Your task to perform on an android device: stop showing notifications on the lock screen Image 0: 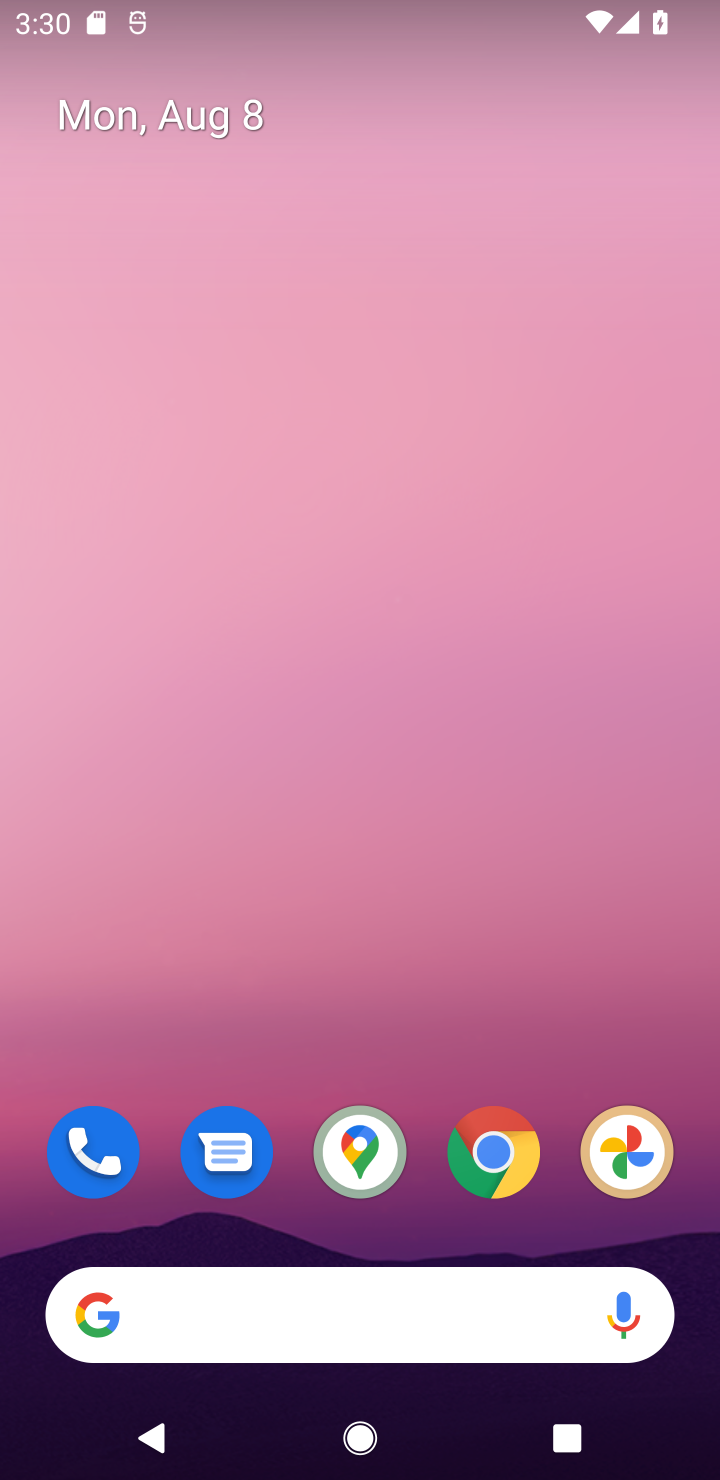
Step 0: drag from (425, 481) to (473, 253)
Your task to perform on an android device: stop showing notifications on the lock screen Image 1: 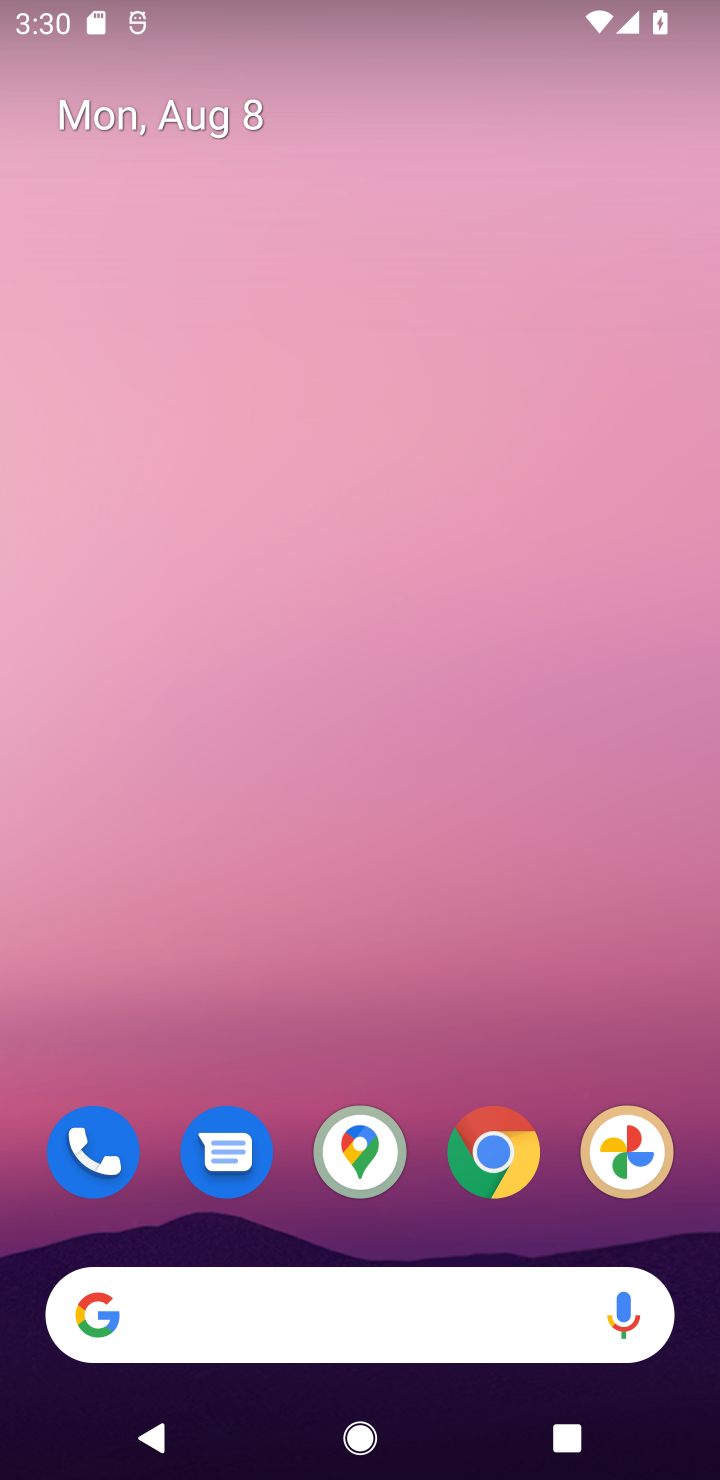
Step 1: drag from (361, 1071) to (370, 6)
Your task to perform on an android device: stop showing notifications on the lock screen Image 2: 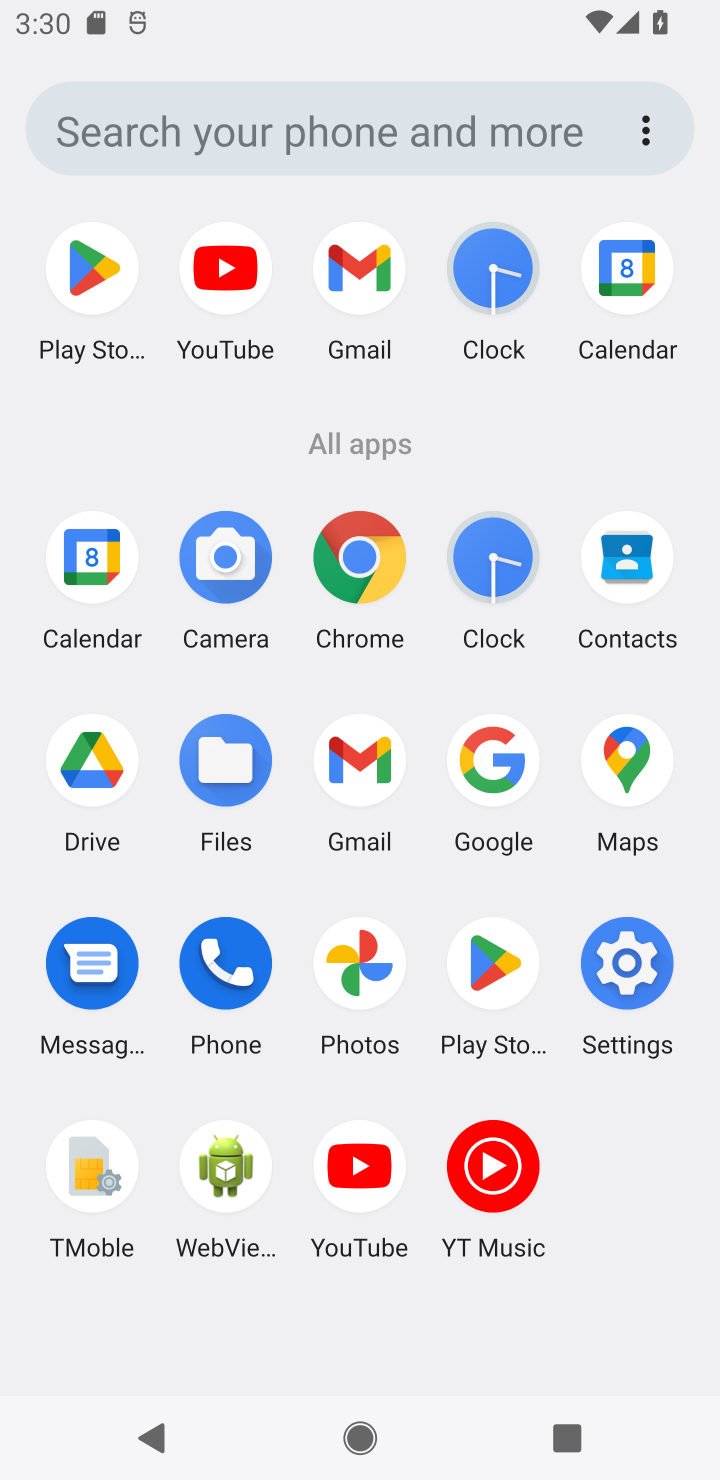
Step 2: click (593, 954)
Your task to perform on an android device: stop showing notifications on the lock screen Image 3: 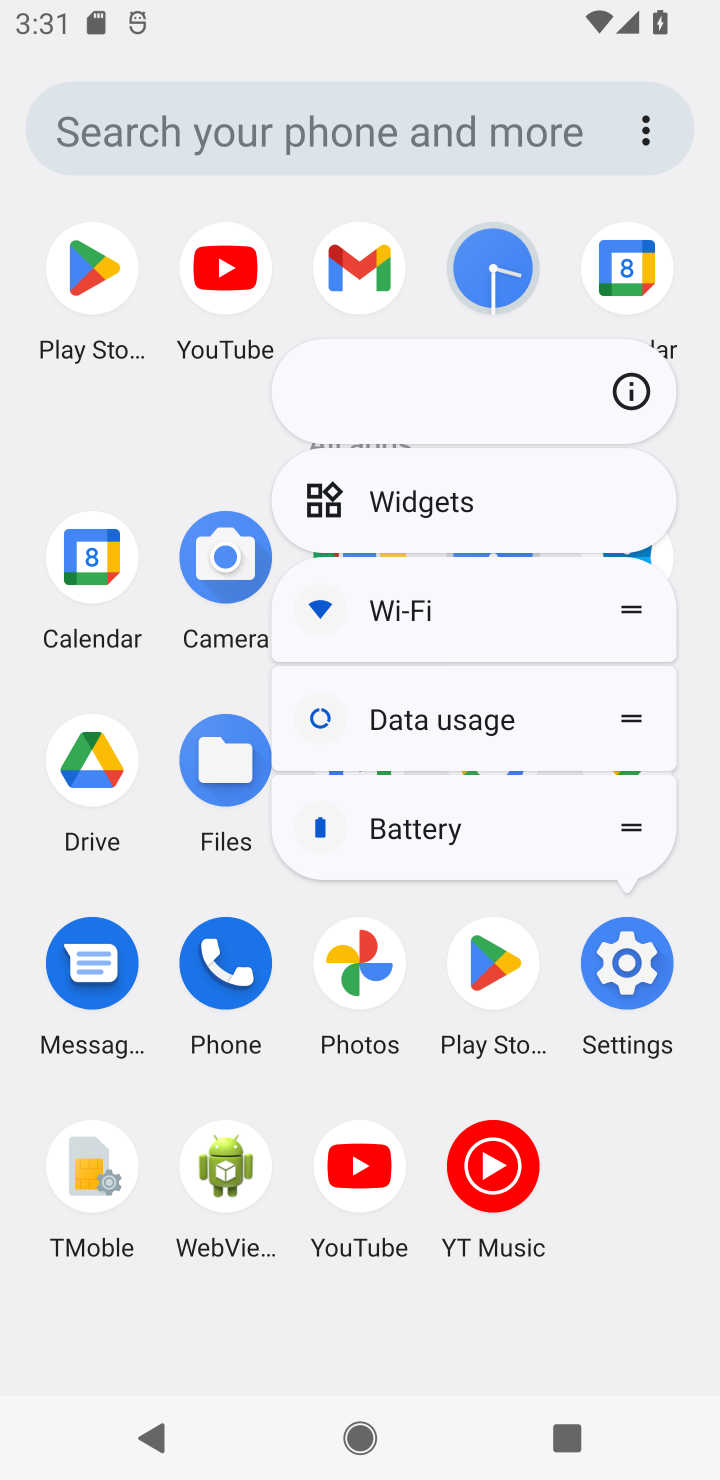
Step 3: click (636, 961)
Your task to perform on an android device: stop showing notifications on the lock screen Image 4: 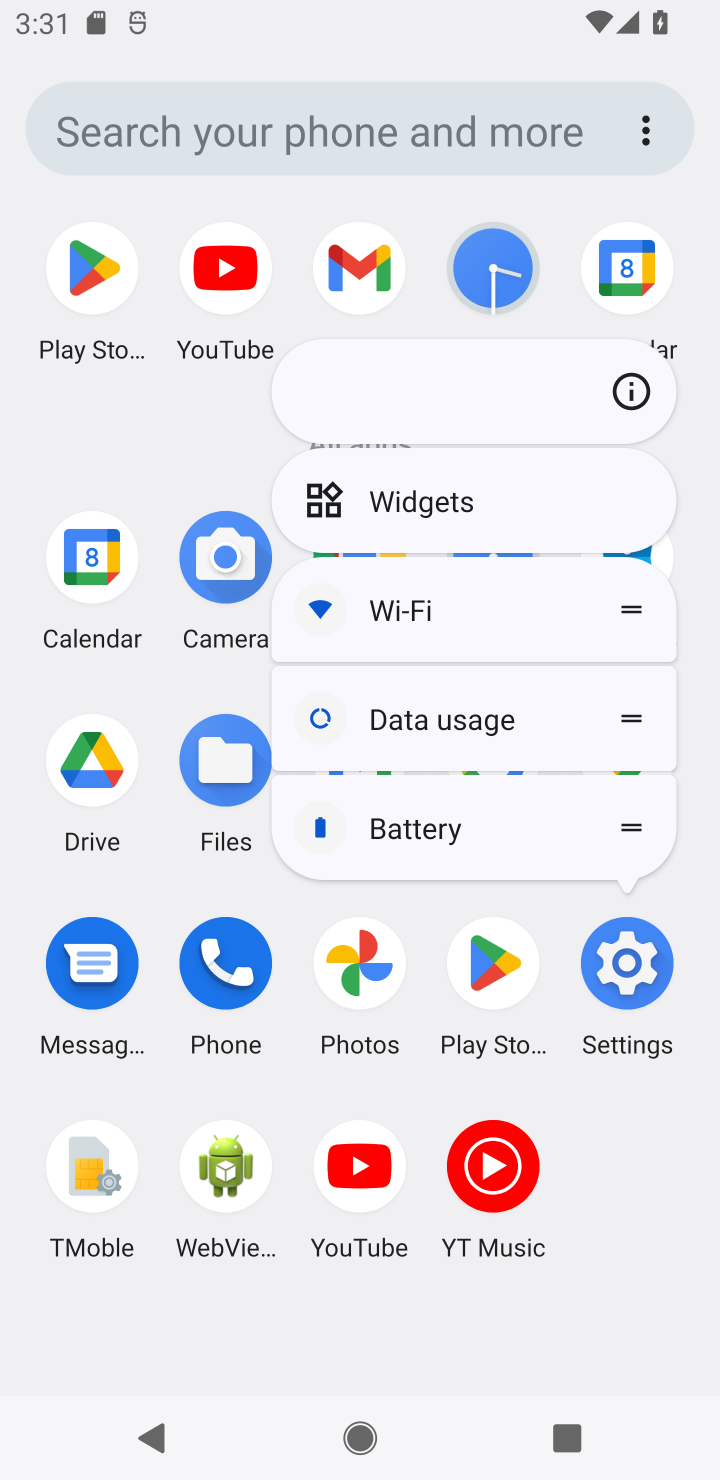
Step 4: click (636, 961)
Your task to perform on an android device: stop showing notifications on the lock screen Image 5: 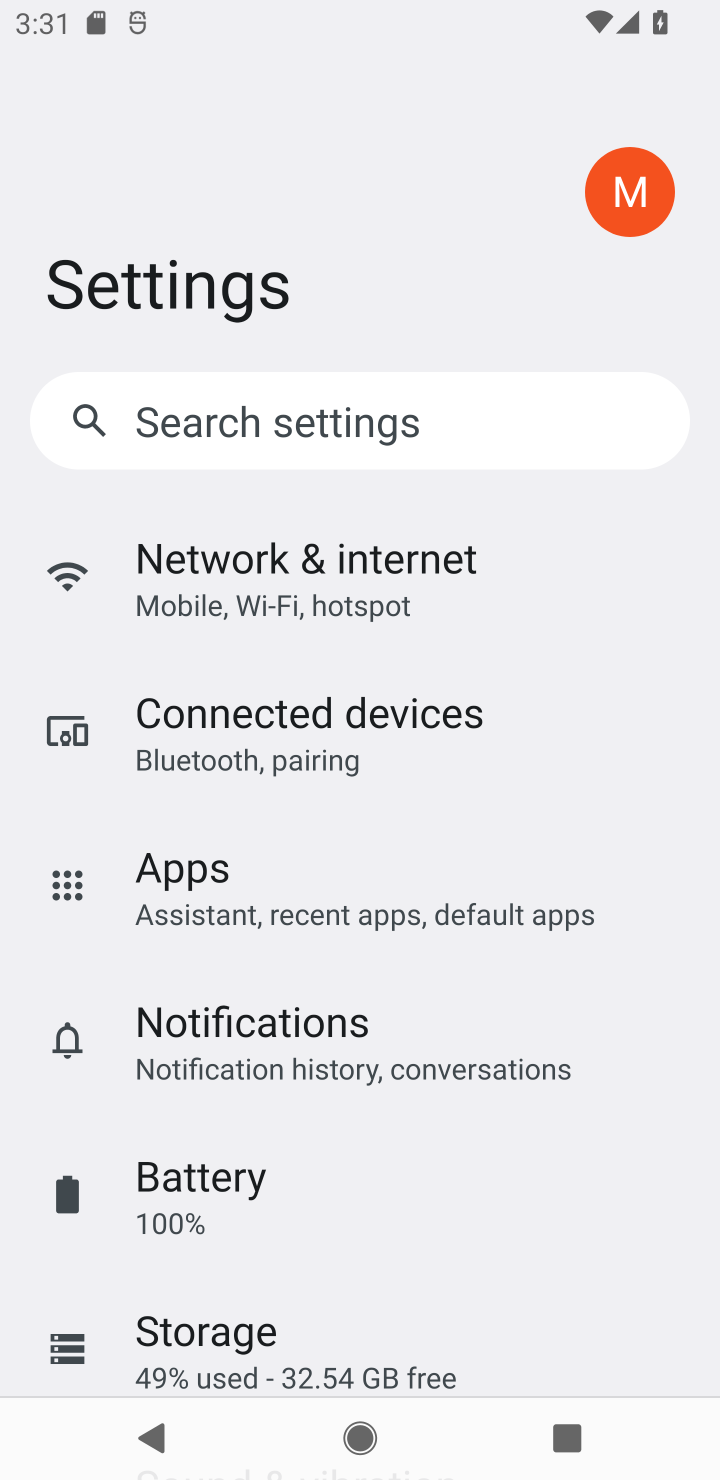
Step 5: click (256, 1030)
Your task to perform on an android device: stop showing notifications on the lock screen Image 6: 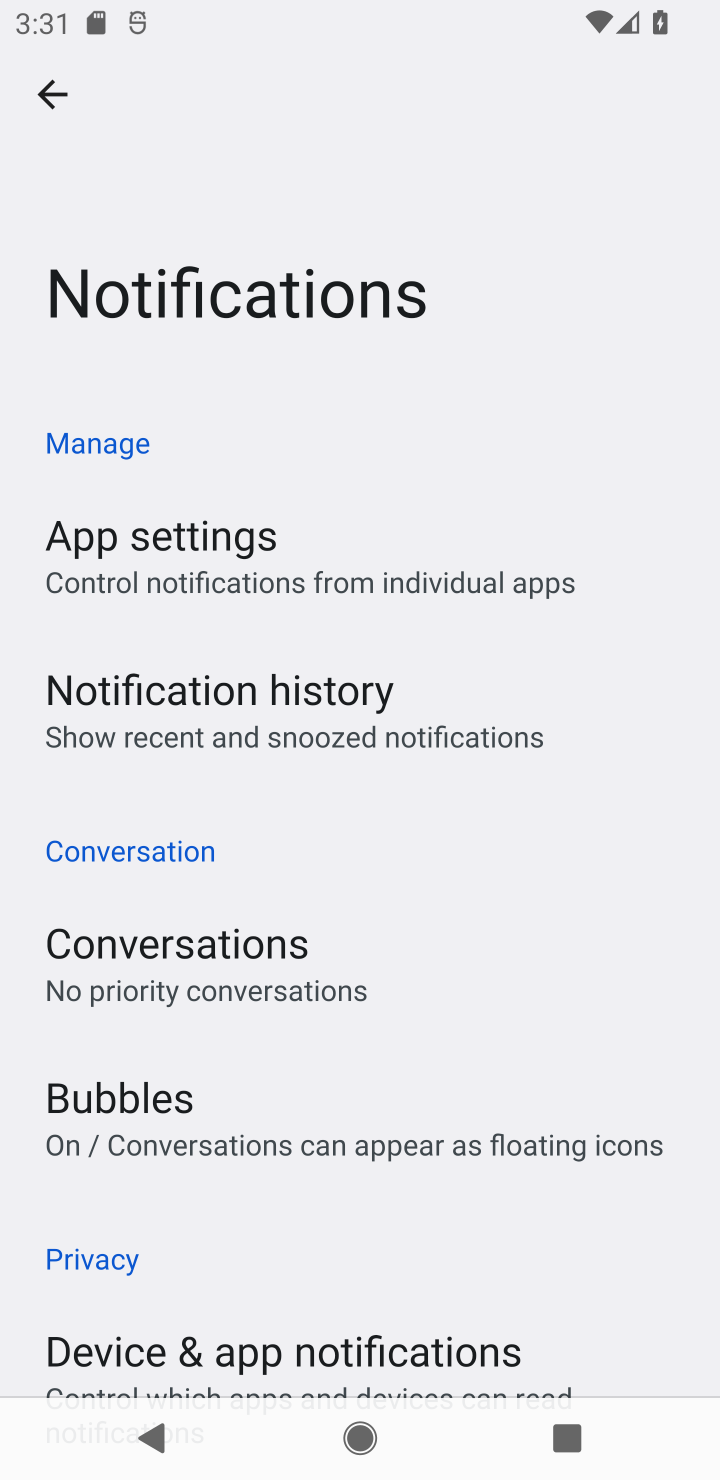
Step 6: click (303, 1203)
Your task to perform on an android device: stop showing notifications on the lock screen Image 7: 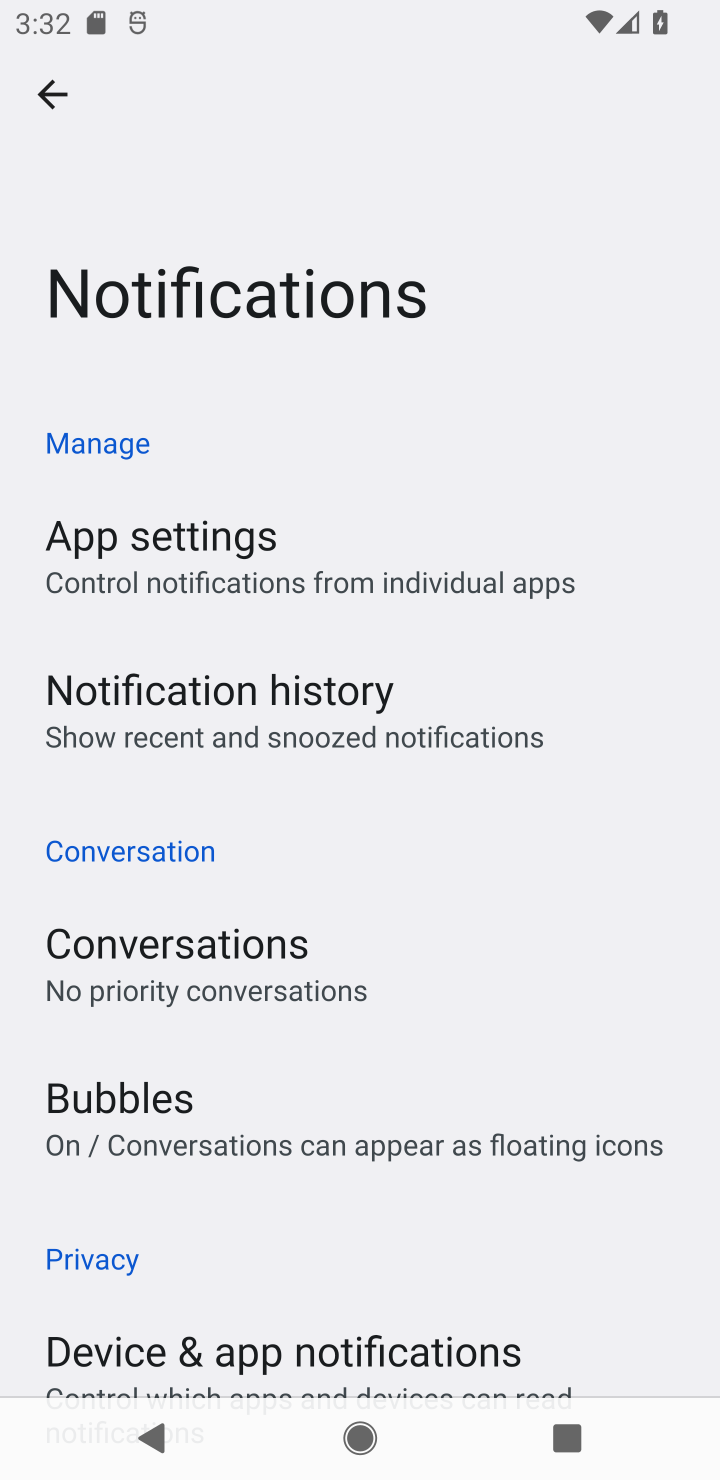
Step 7: click (63, 76)
Your task to perform on an android device: stop showing notifications on the lock screen Image 8: 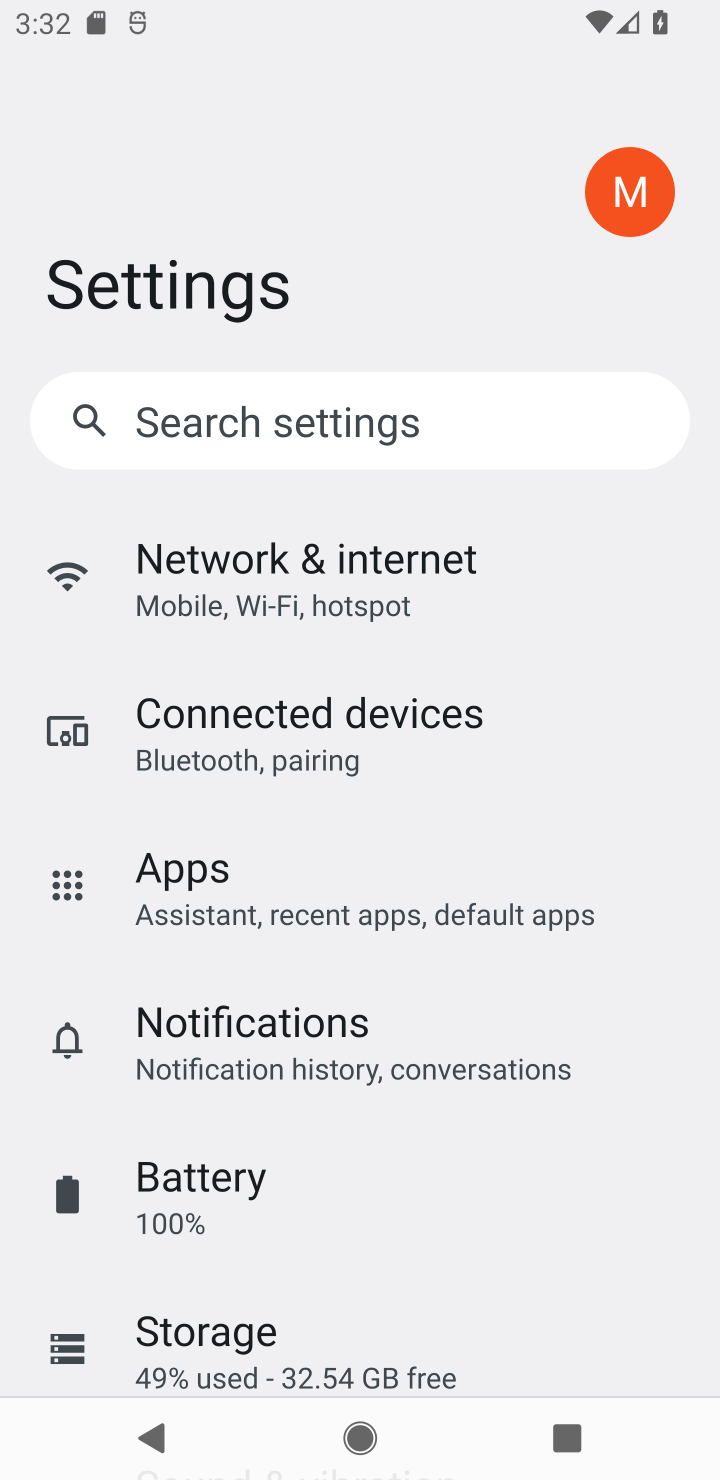
Step 8: click (234, 1050)
Your task to perform on an android device: stop showing notifications on the lock screen Image 9: 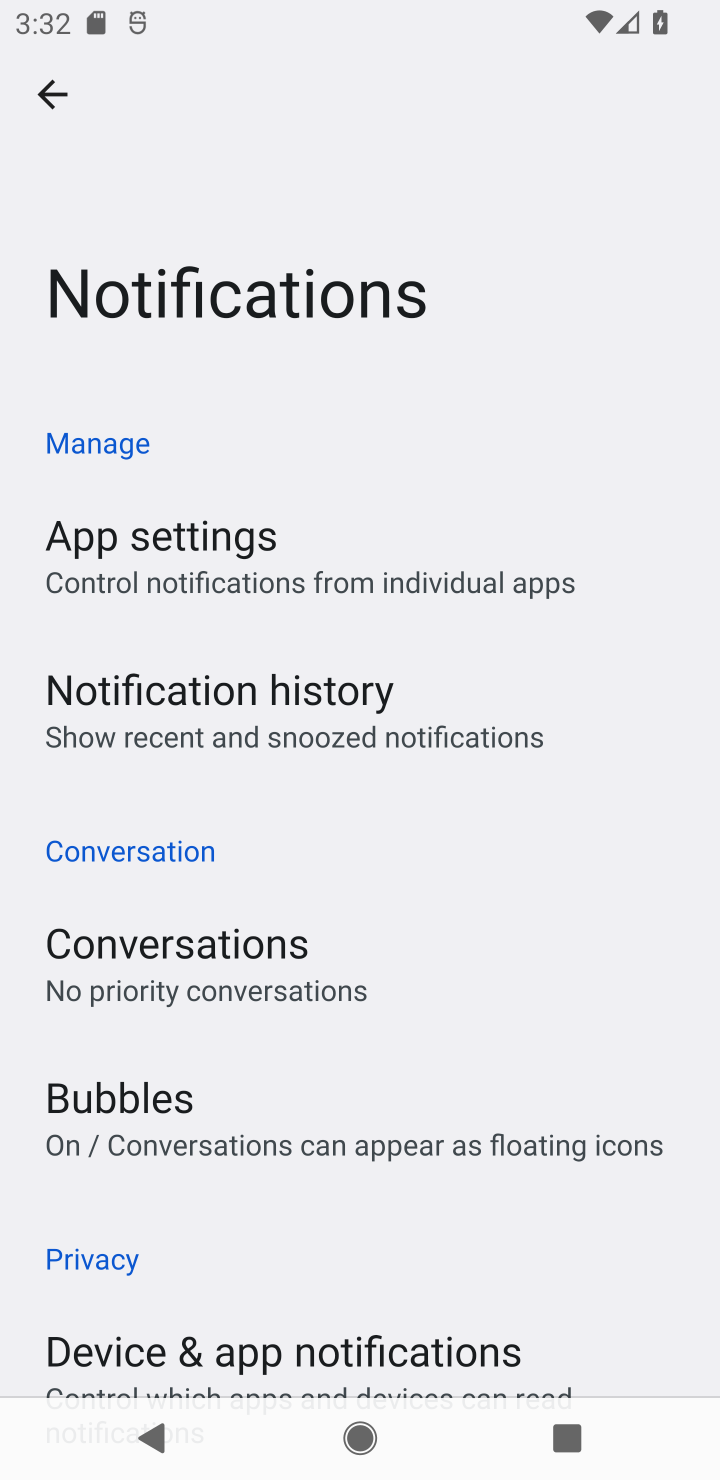
Step 9: click (276, 677)
Your task to perform on an android device: stop showing notifications on the lock screen Image 10: 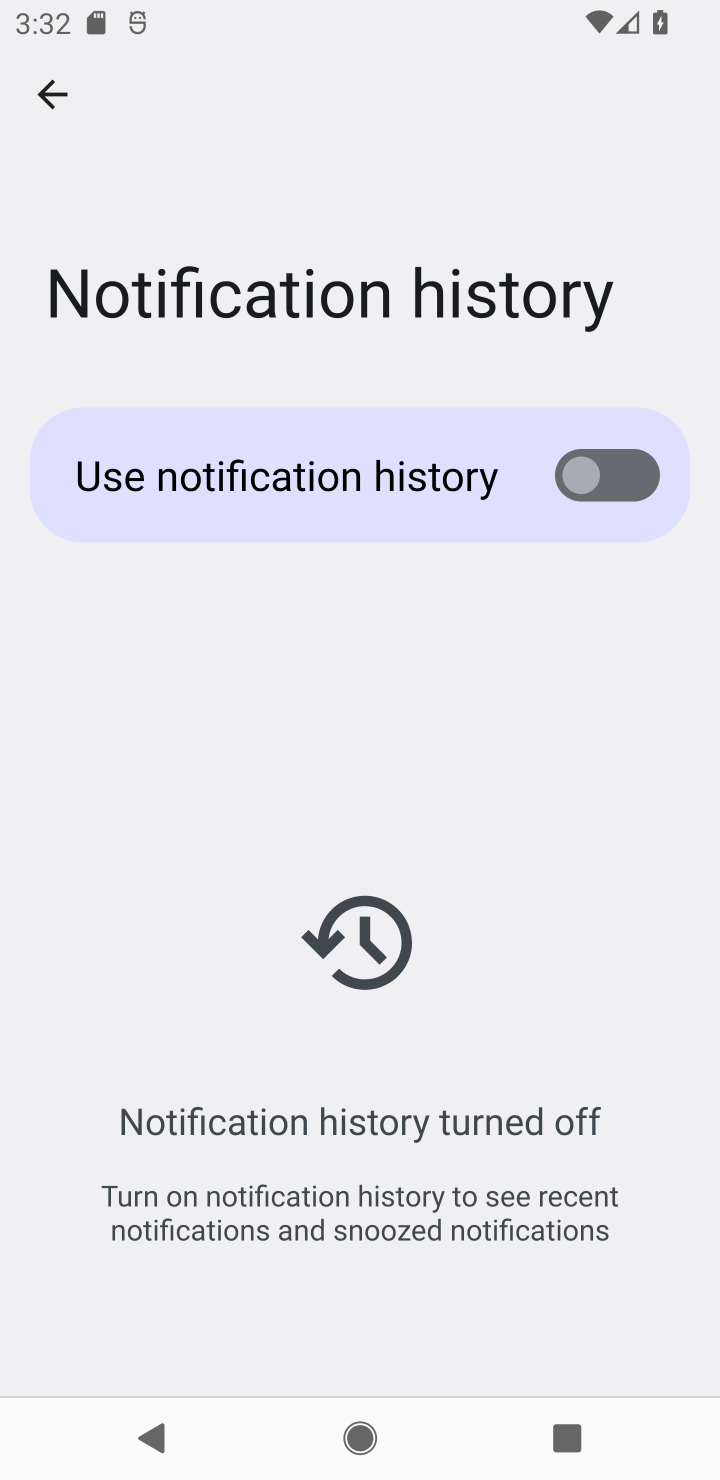
Step 10: click (68, 90)
Your task to perform on an android device: stop showing notifications on the lock screen Image 11: 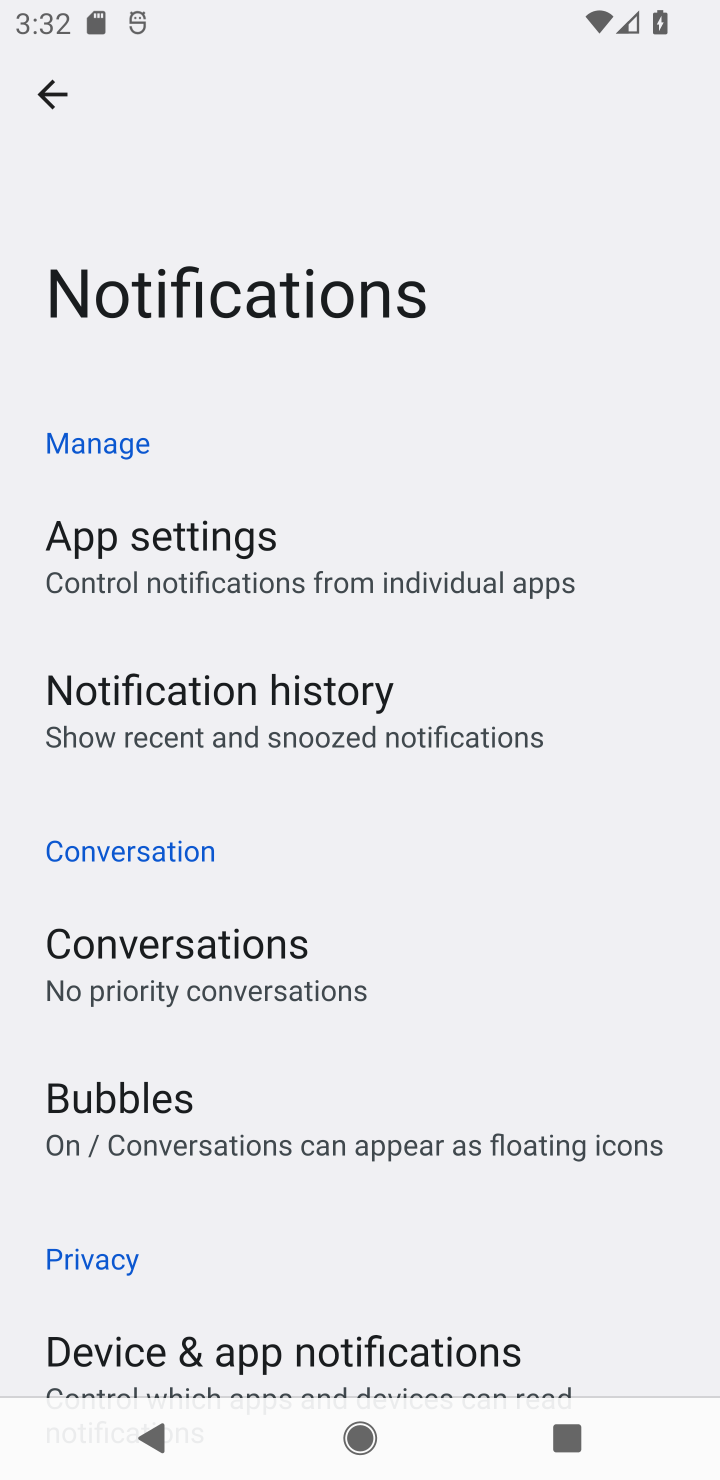
Step 11: drag from (311, 1222) to (426, 405)
Your task to perform on an android device: stop showing notifications on the lock screen Image 12: 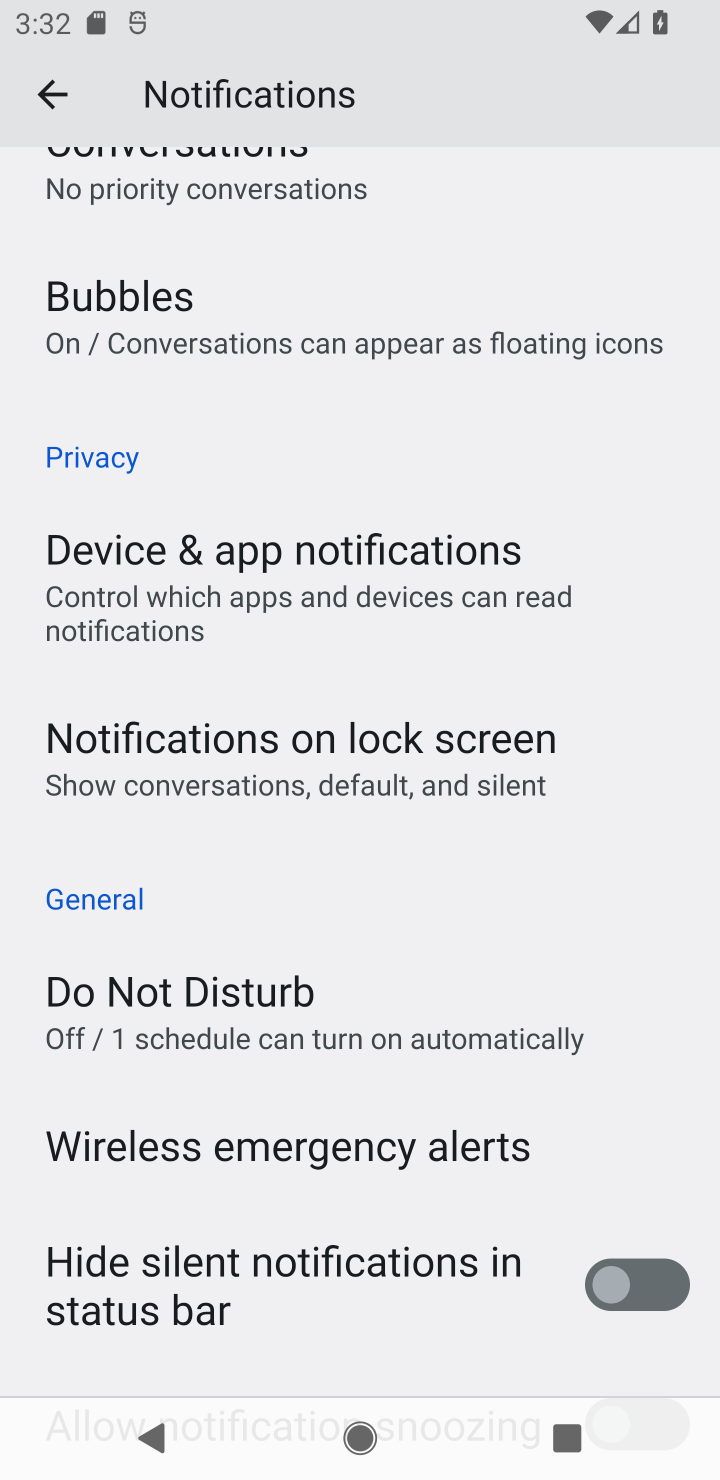
Step 12: click (337, 768)
Your task to perform on an android device: stop showing notifications on the lock screen Image 13: 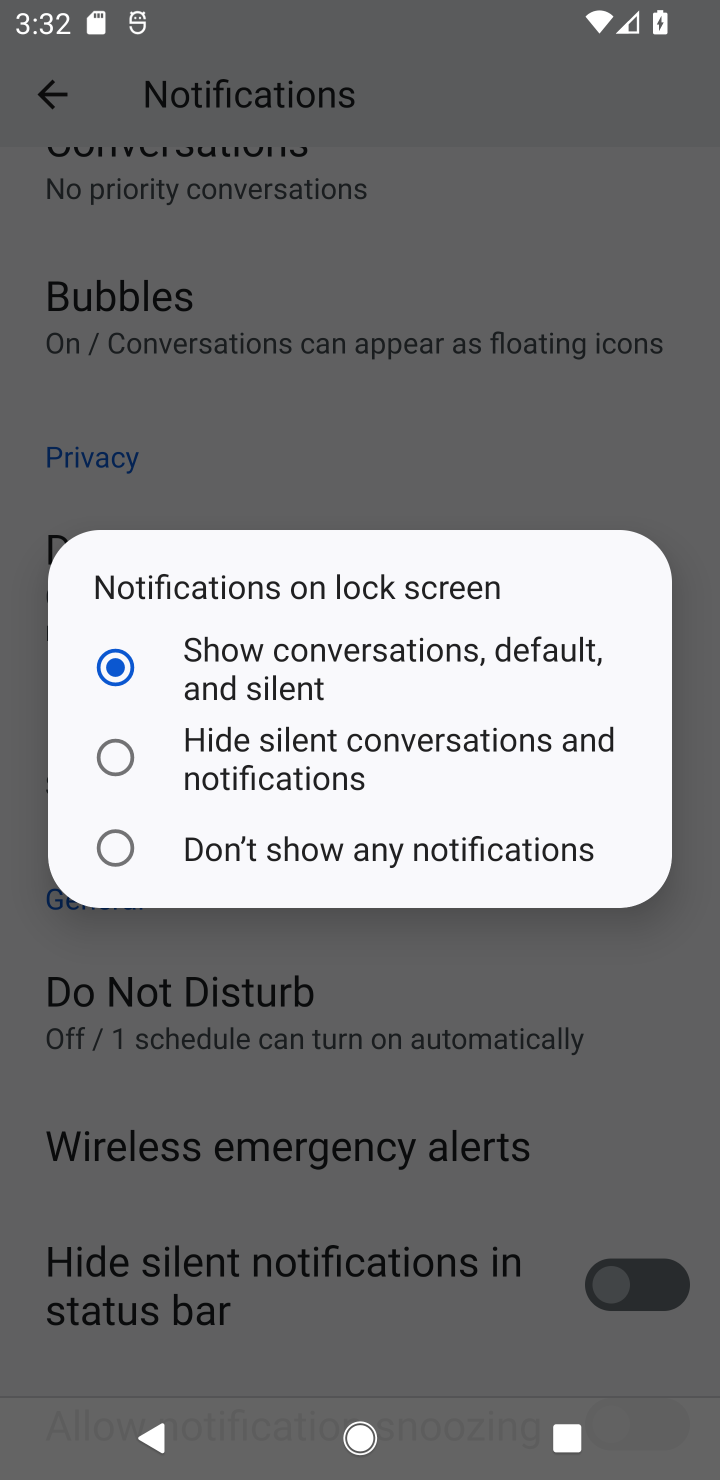
Step 13: click (277, 849)
Your task to perform on an android device: stop showing notifications on the lock screen Image 14: 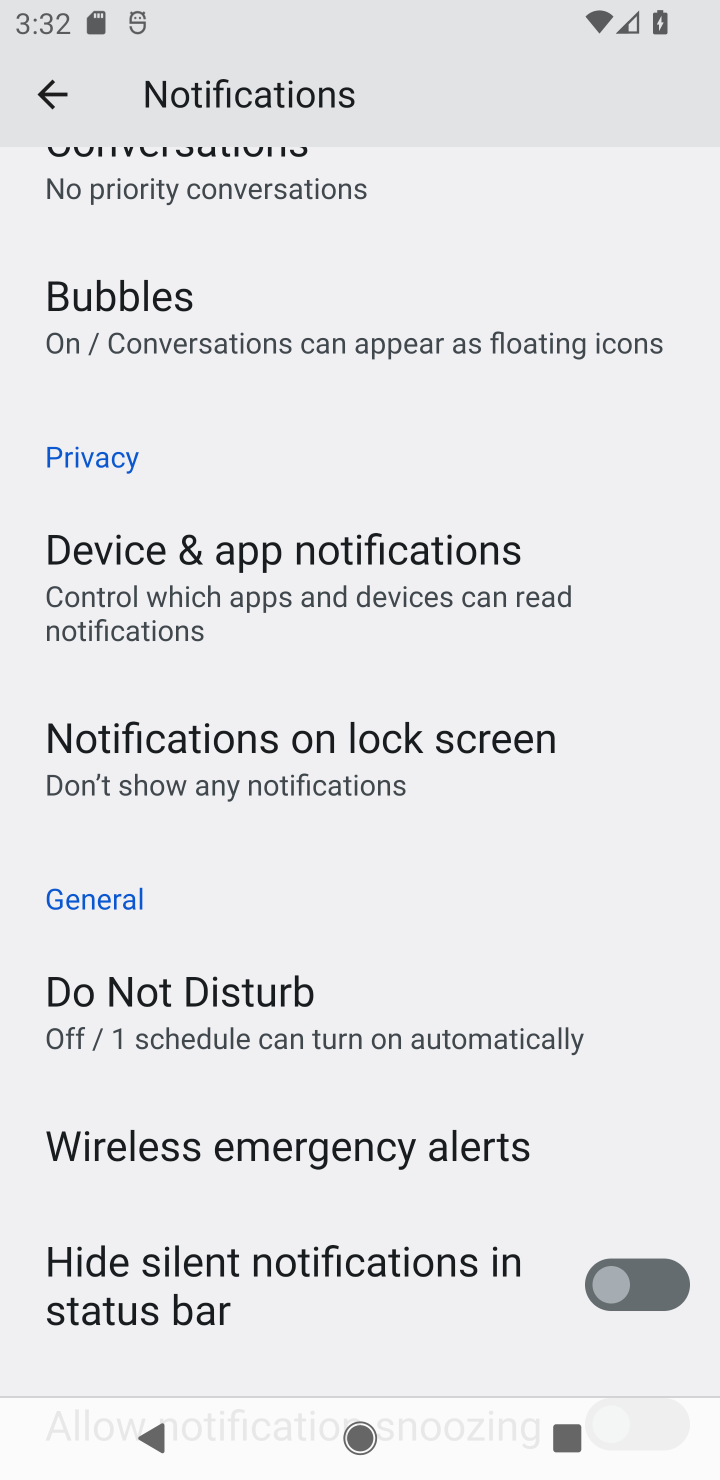
Step 14: task complete